Your task to perform on an android device: Open Google Maps Image 0: 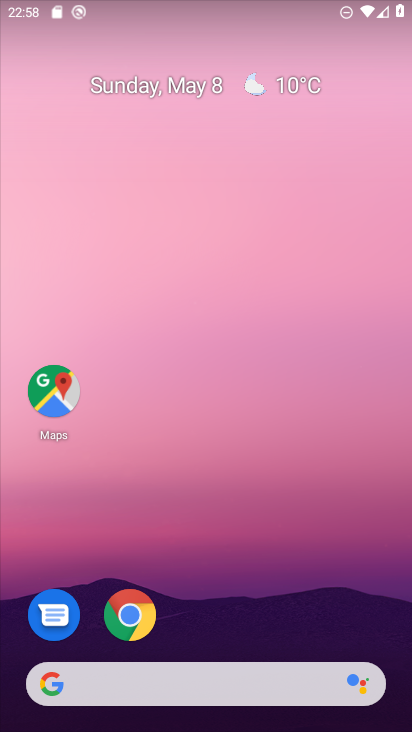
Step 0: drag from (264, 637) to (267, 253)
Your task to perform on an android device: Open Google Maps Image 1: 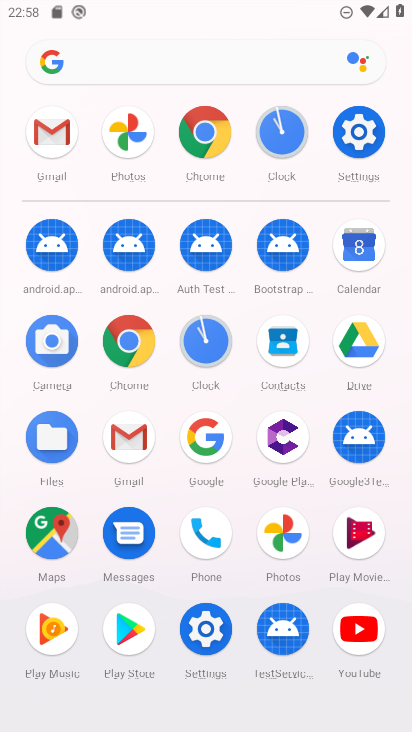
Step 1: click (55, 533)
Your task to perform on an android device: Open Google Maps Image 2: 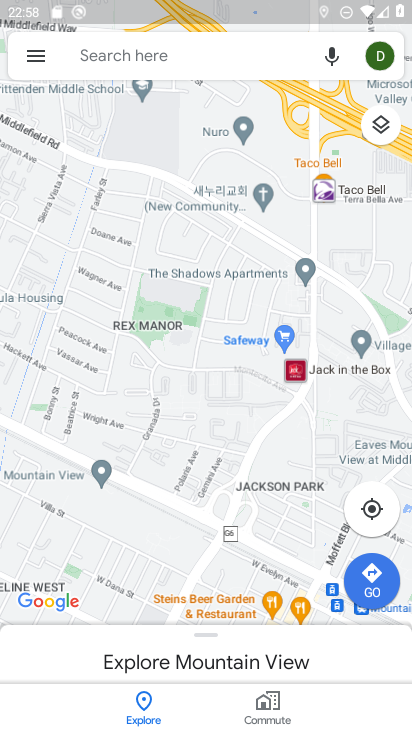
Step 2: task complete